Your task to perform on an android device: Open network settings Image 0: 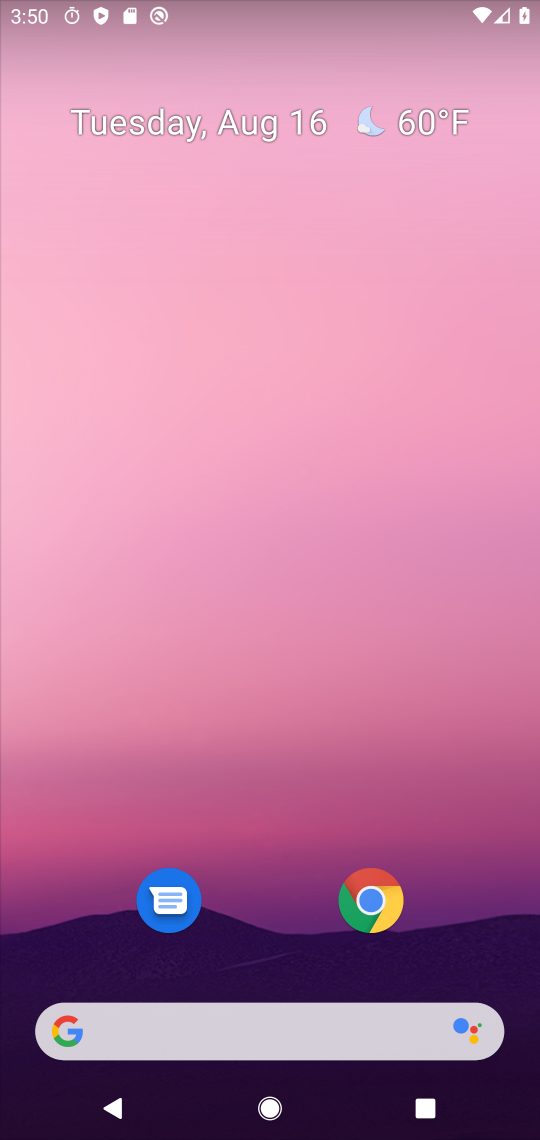
Step 0: drag from (286, 936) to (235, 15)
Your task to perform on an android device: Open network settings Image 1: 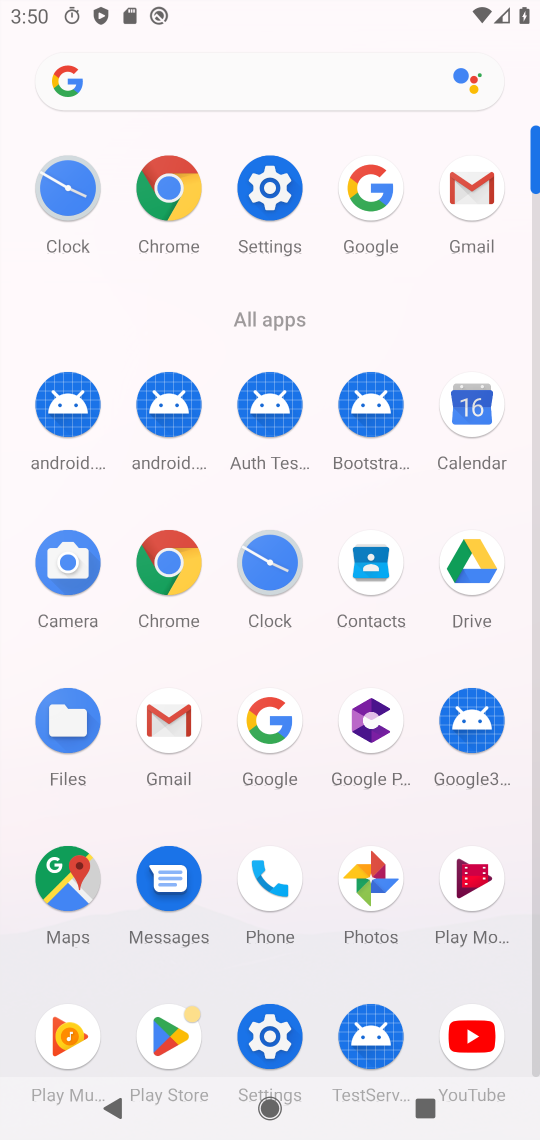
Step 1: click (270, 198)
Your task to perform on an android device: Open network settings Image 2: 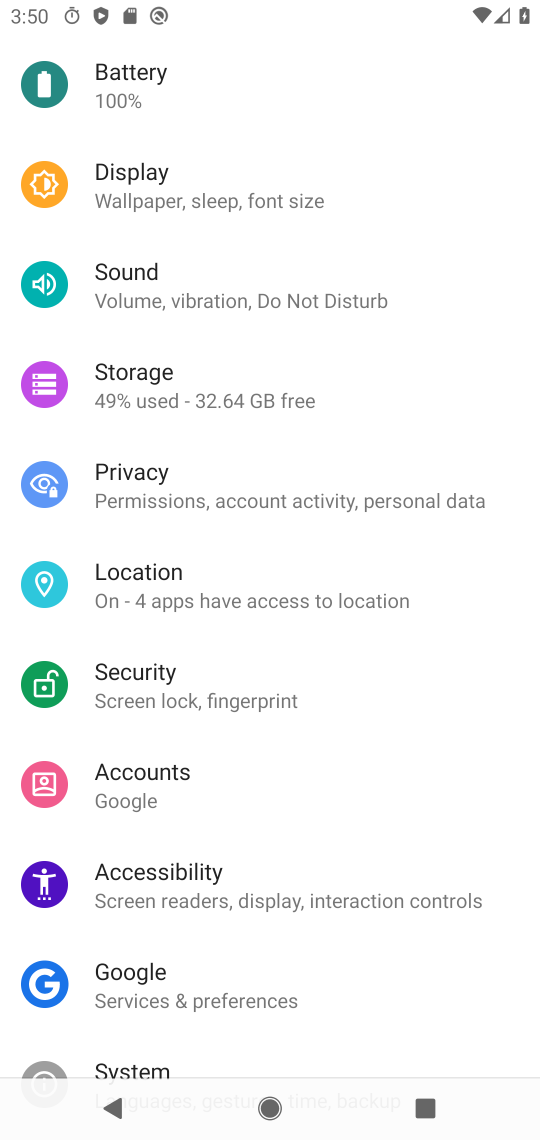
Step 2: drag from (167, 277) to (235, 949)
Your task to perform on an android device: Open network settings Image 3: 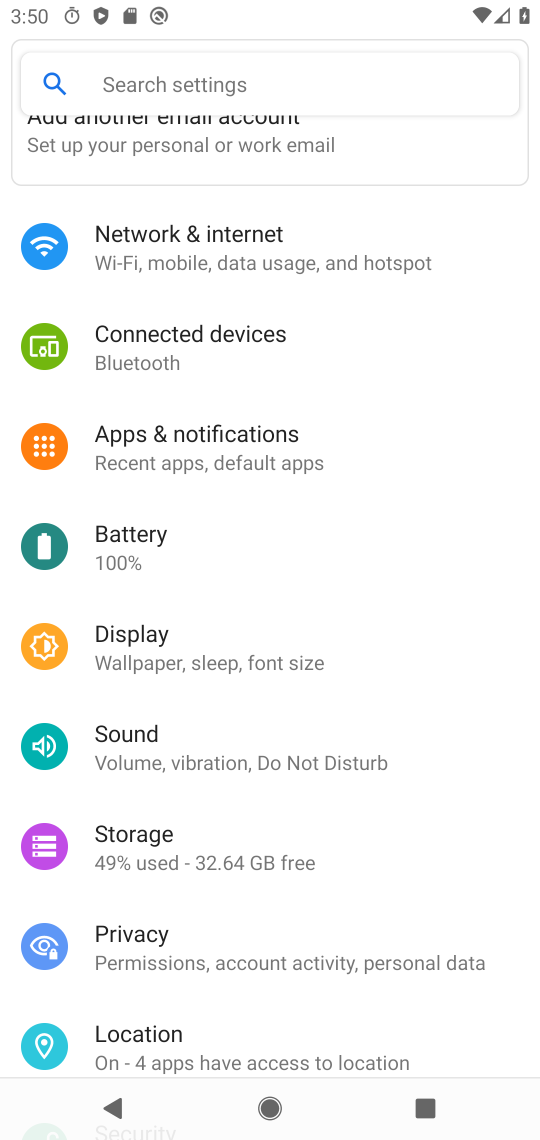
Step 3: click (177, 271)
Your task to perform on an android device: Open network settings Image 4: 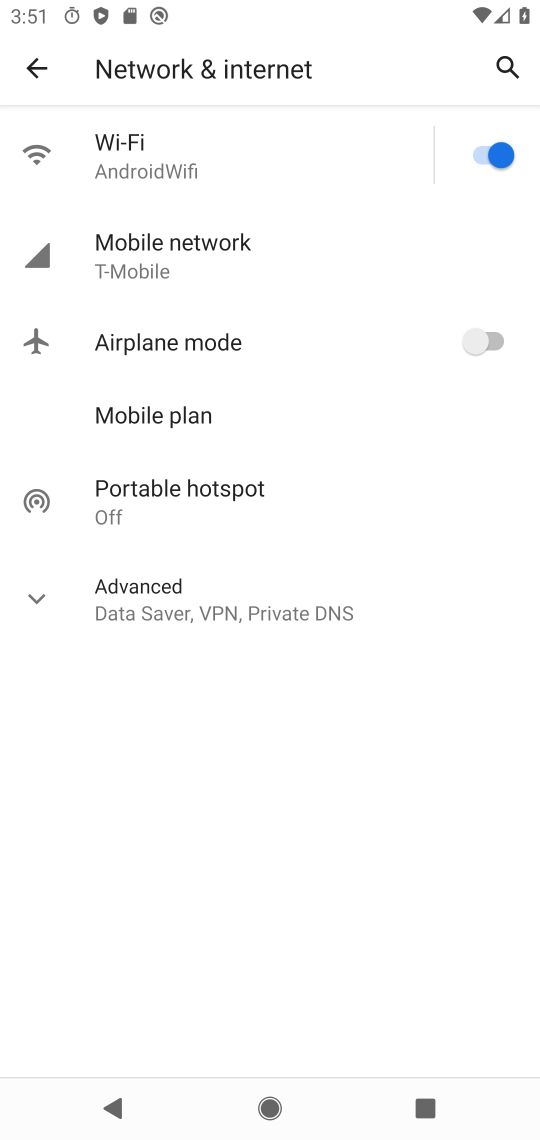
Step 4: click (143, 255)
Your task to perform on an android device: Open network settings Image 5: 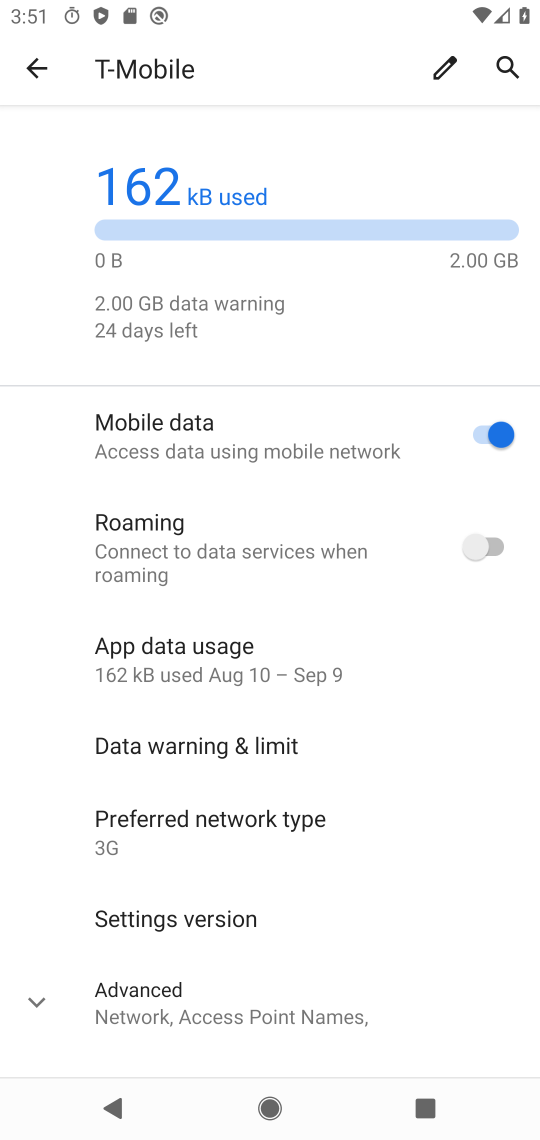
Step 5: task complete